Your task to perform on an android device: Open notification settings Image 0: 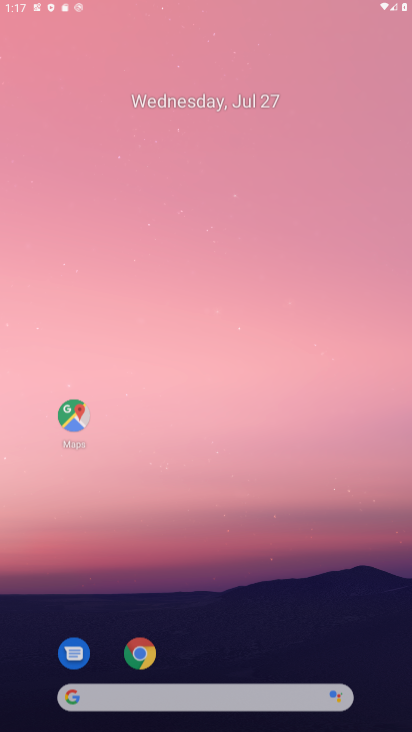
Step 0: drag from (246, 491) to (318, 132)
Your task to perform on an android device: Open notification settings Image 1: 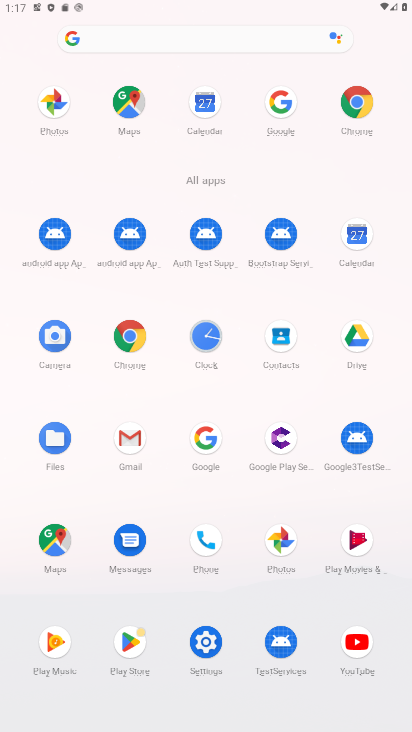
Step 1: click (211, 652)
Your task to perform on an android device: Open notification settings Image 2: 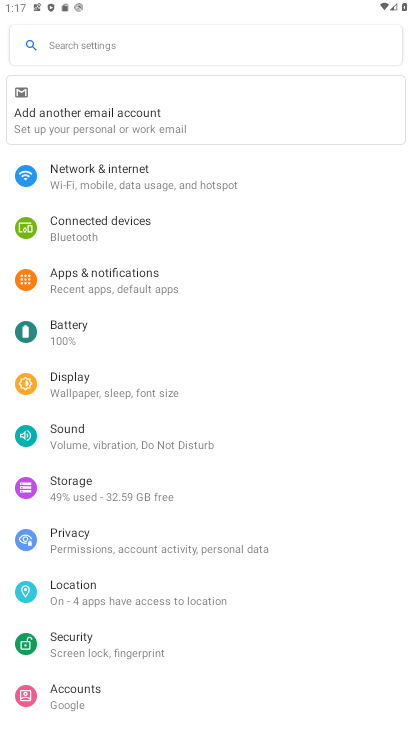
Step 2: click (133, 277)
Your task to perform on an android device: Open notification settings Image 3: 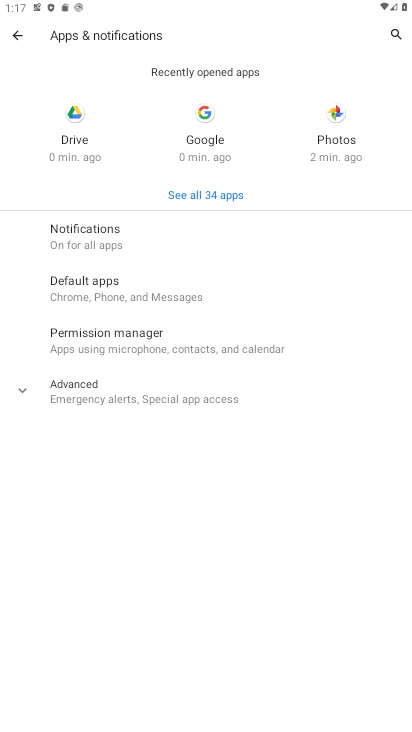
Step 3: click (87, 216)
Your task to perform on an android device: Open notification settings Image 4: 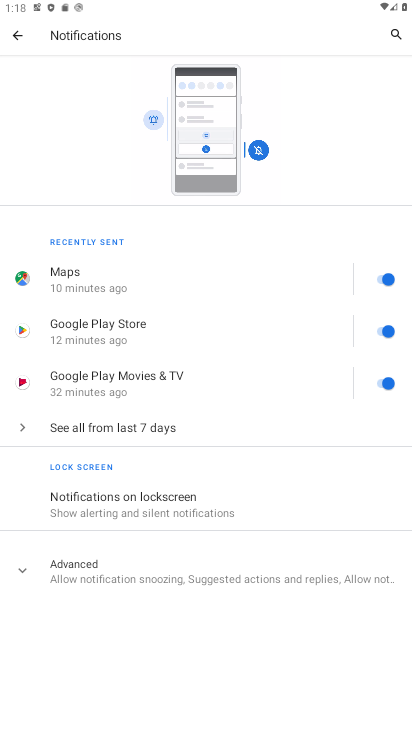
Step 4: task complete